Your task to perform on an android device: Go to notification settings Image 0: 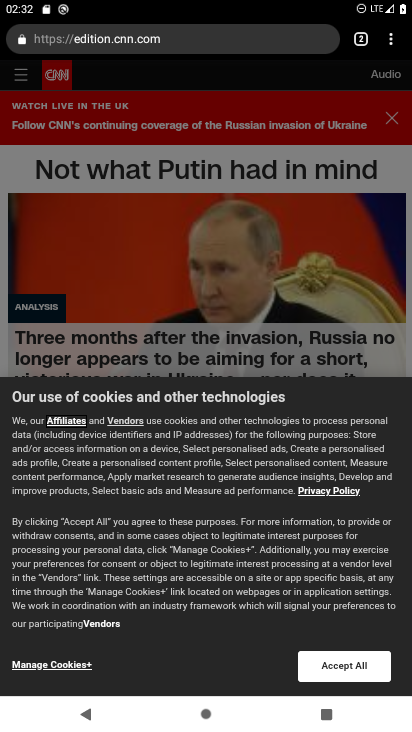
Step 0: press home button
Your task to perform on an android device: Go to notification settings Image 1: 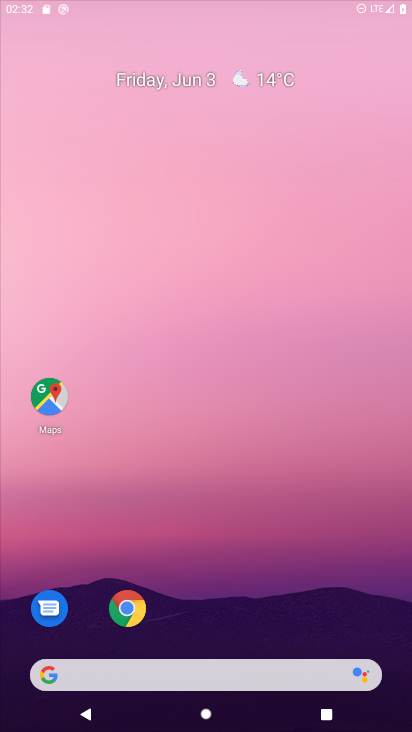
Step 1: drag from (269, 489) to (233, 175)
Your task to perform on an android device: Go to notification settings Image 2: 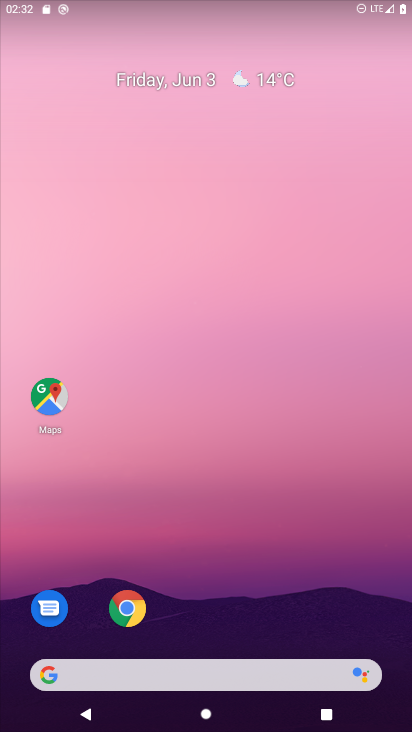
Step 2: drag from (269, 507) to (274, 123)
Your task to perform on an android device: Go to notification settings Image 3: 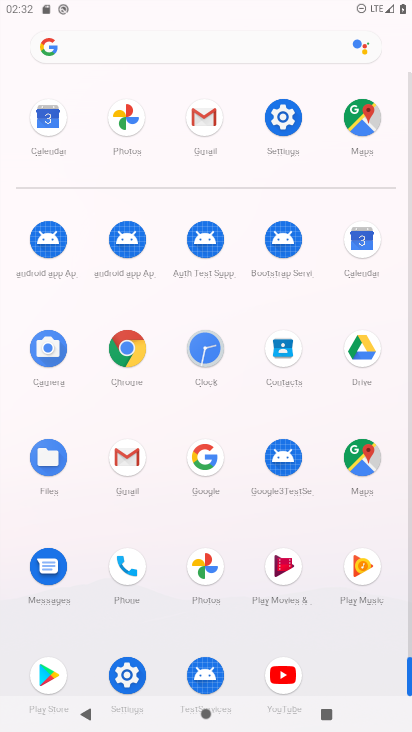
Step 3: click (291, 118)
Your task to perform on an android device: Go to notification settings Image 4: 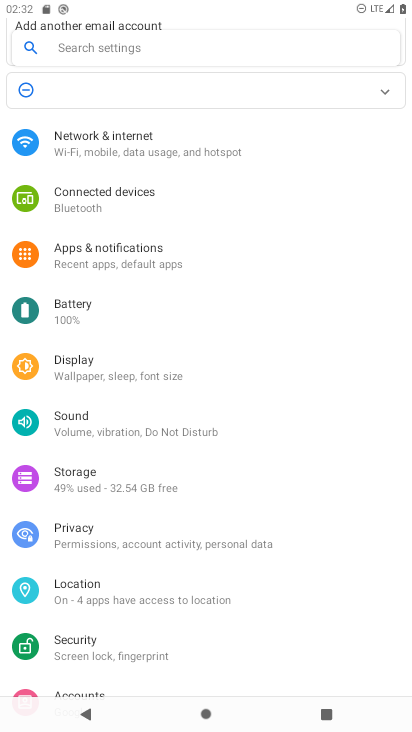
Step 4: click (140, 251)
Your task to perform on an android device: Go to notification settings Image 5: 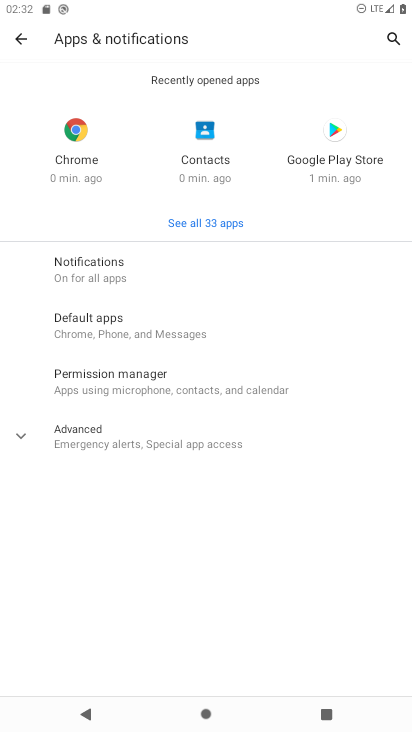
Step 5: click (127, 261)
Your task to perform on an android device: Go to notification settings Image 6: 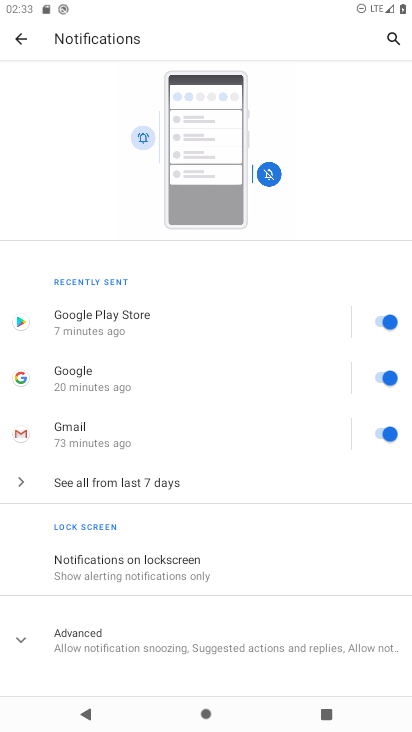
Step 6: task complete